Your task to perform on an android device: Open the map Image 0: 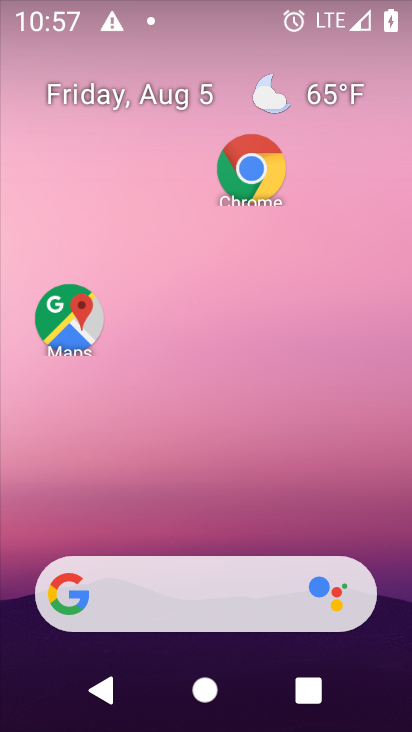
Step 0: click (85, 321)
Your task to perform on an android device: Open the map Image 1: 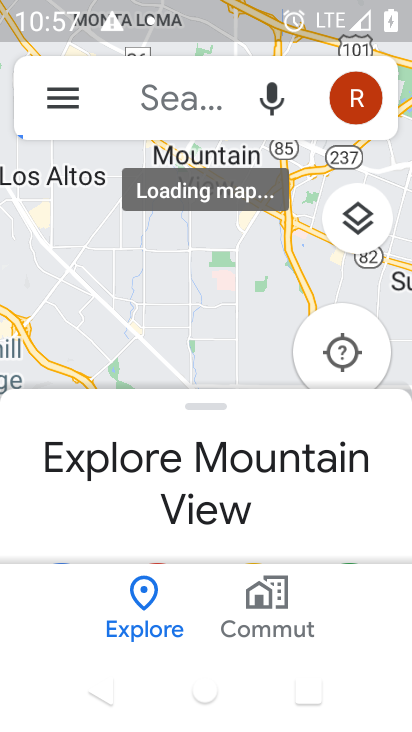
Step 1: task complete